Your task to perform on an android device: change notifications settings Image 0: 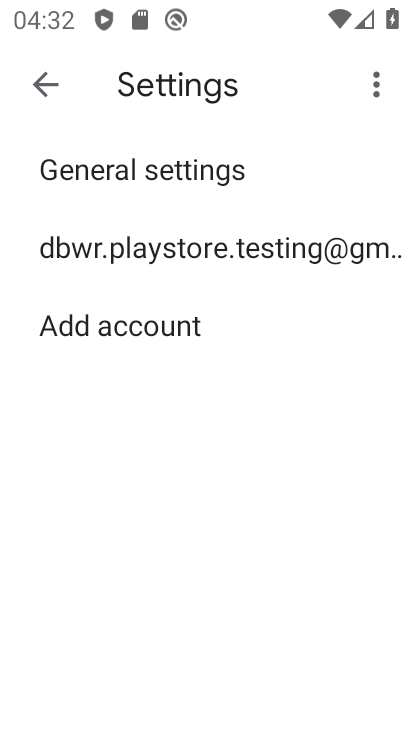
Step 0: press home button
Your task to perform on an android device: change notifications settings Image 1: 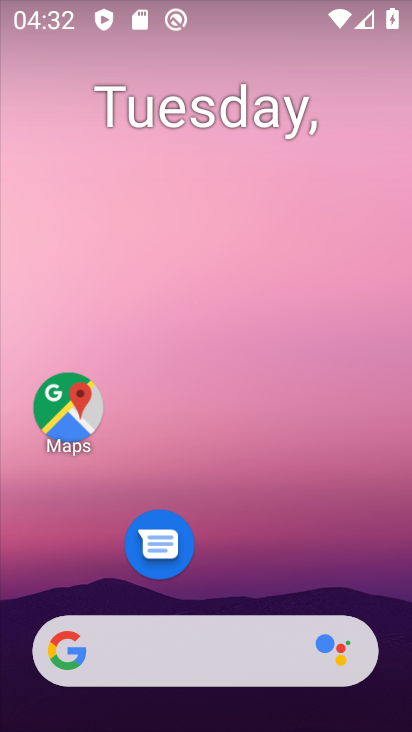
Step 1: drag from (234, 599) to (242, 216)
Your task to perform on an android device: change notifications settings Image 2: 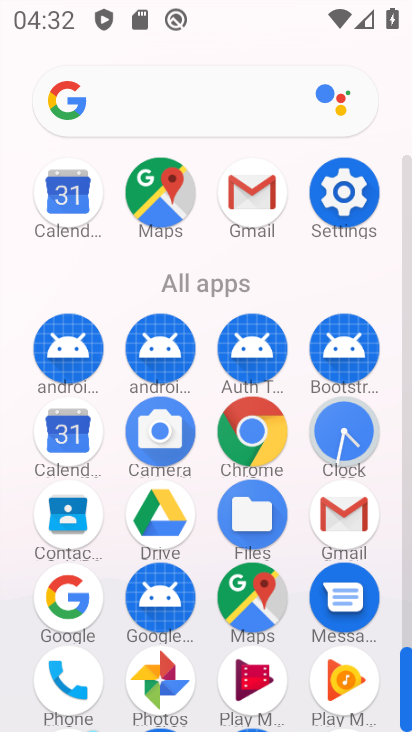
Step 2: click (337, 195)
Your task to perform on an android device: change notifications settings Image 3: 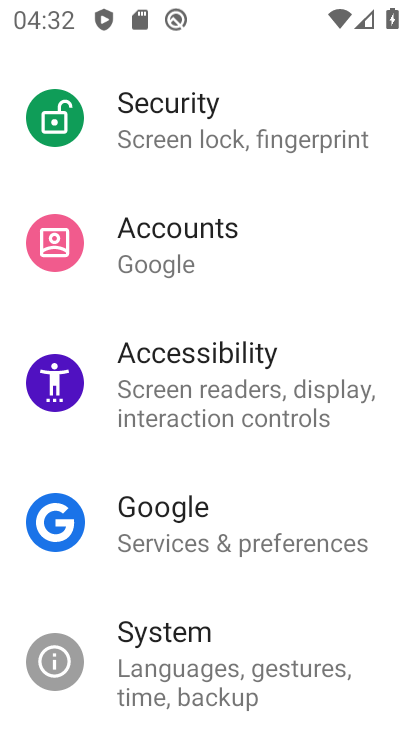
Step 3: drag from (216, 260) to (204, 471)
Your task to perform on an android device: change notifications settings Image 4: 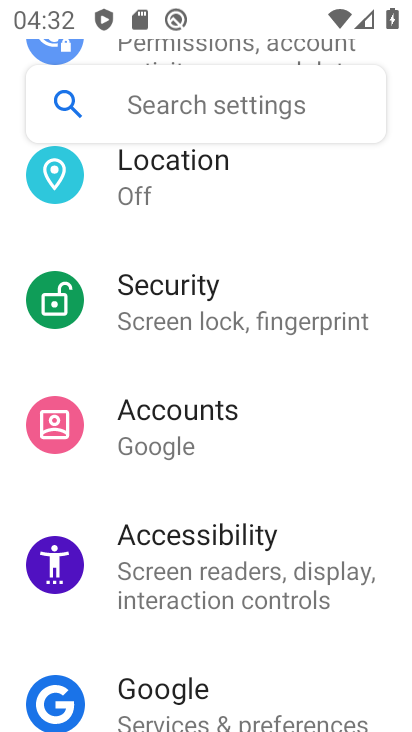
Step 4: drag from (197, 225) to (196, 503)
Your task to perform on an android device: change notifications settings Image 5: 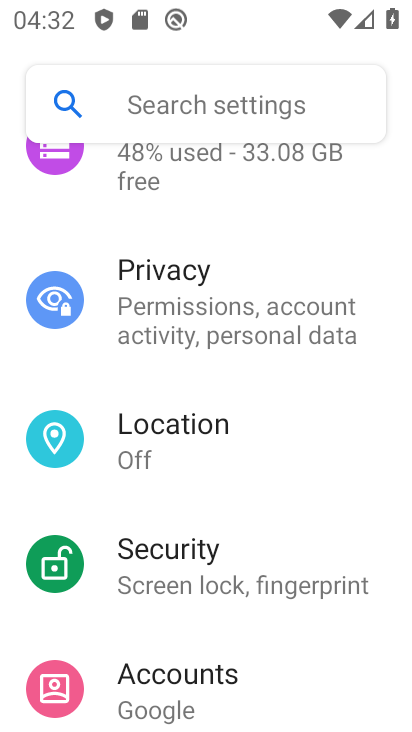
Step 5: drag from (244, 262) to (221, 502)
Your task to perform on an android device: change notifications settings Image 6: 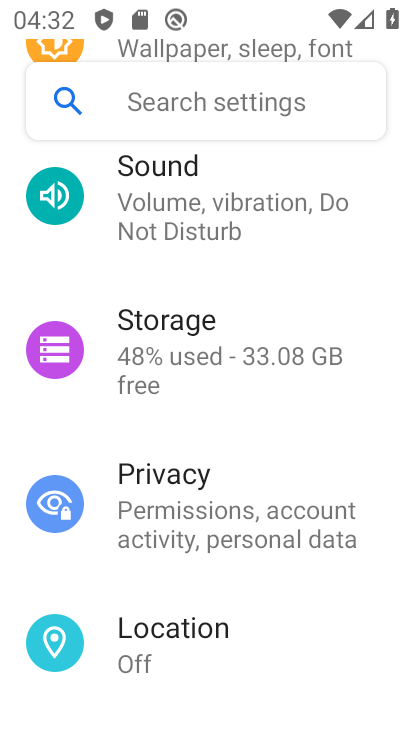
Step 6: drag from (236, 248) to (193, 725)
Your task to perform on an android device: change notifications settings Image 7: 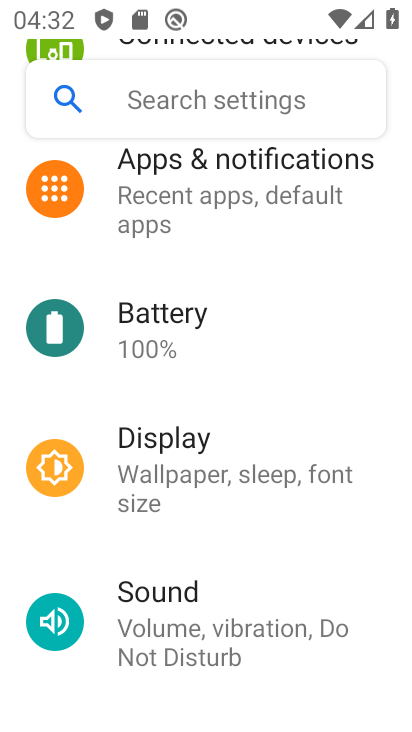
Step 7: click (261, 215)
Your task to perform on an android device: change notifications settings Image 8: 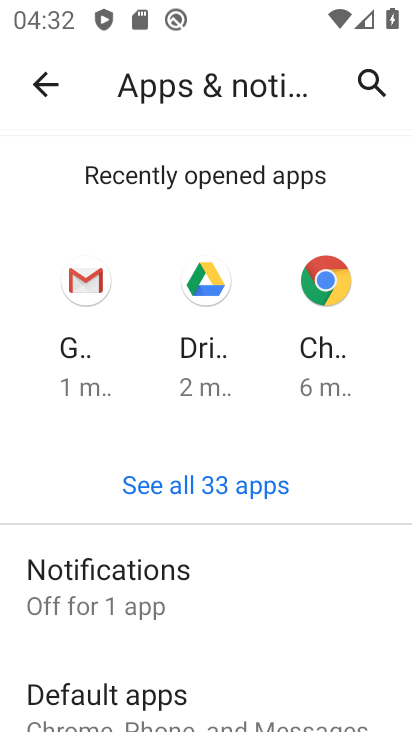
Step 8: click (190, 569)
Your task to perform on an android device: change notifications settings Image 9: 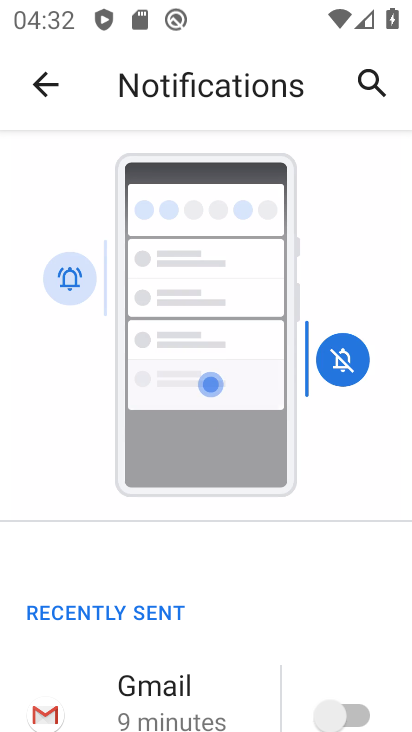
Step 9: drag from (227, 656) to (304, 201)
Your task to perform on an android device: change notifications settings Image 10: 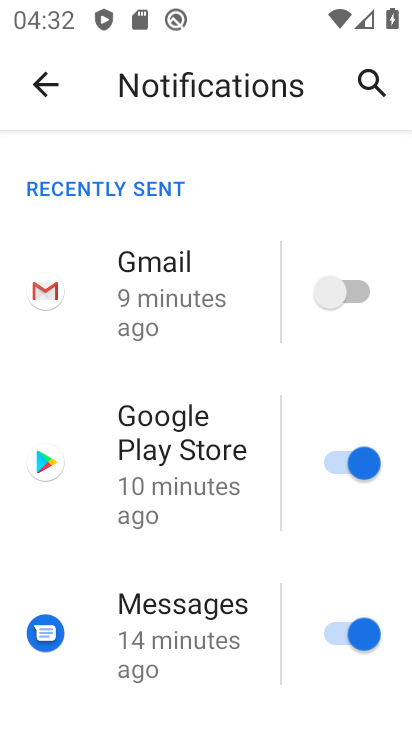
Step 10: click (323, 454)
Your task to perform on an android device: change notifications settings Image 11: 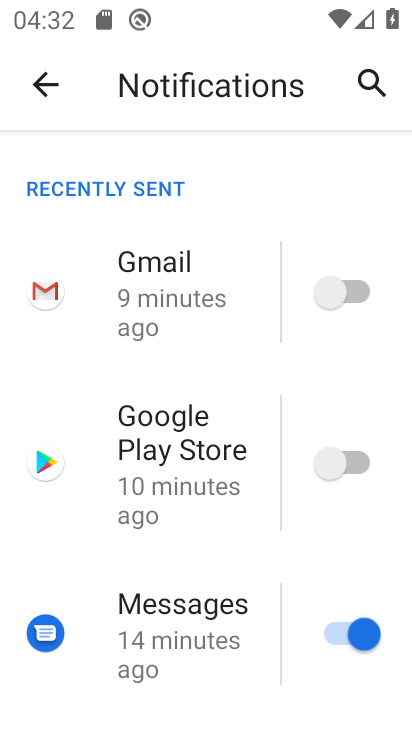
Step 11: click (319, 630)
Your task to perform on an android device: change notifications settings Image 12: 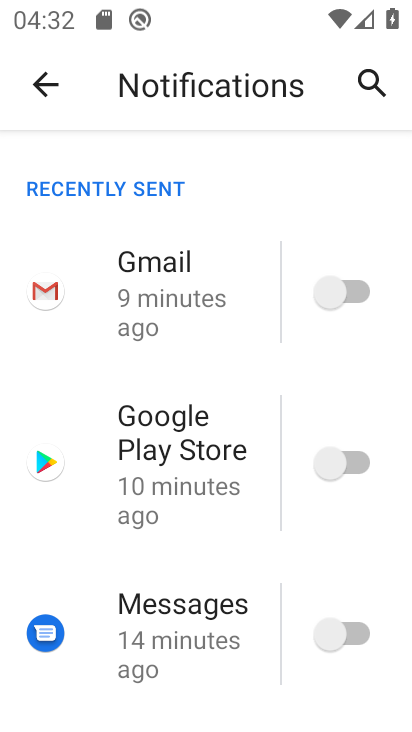
Step 12: drag from (186, 642) to (253, 298)
Your task to perform on an android device: change notifications settings Image 13: 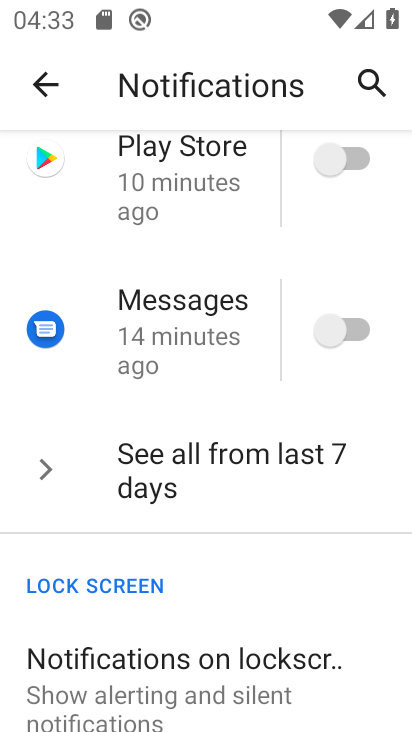
Step 13: click (163, 468)
Your task to perform on an android device: change notifications settings Image 14: 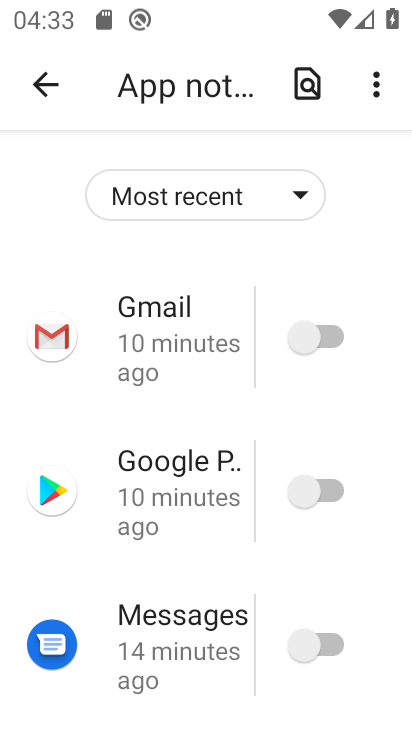
Step 14: drag from (260, 563) to (305, 171)
Your task to perform on an android device: change notifications settings Image 15: 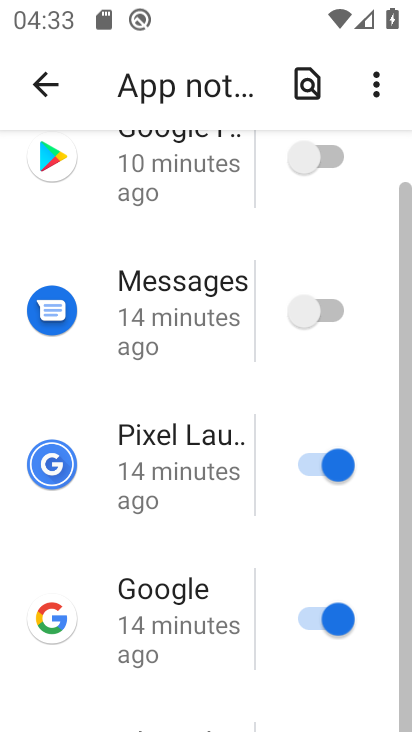
Step 15: click (306, 458)
Your task to perform on an android device: change notifications settings Image 16: 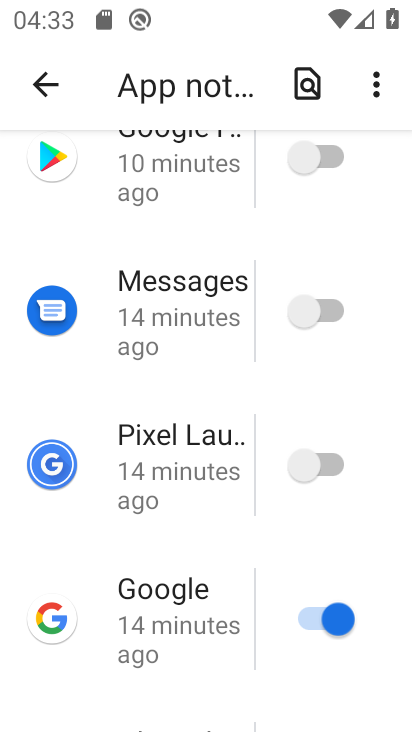
Step 16: click (302, 606)
Your task to perform on an android device: change notifications settings Image 17: 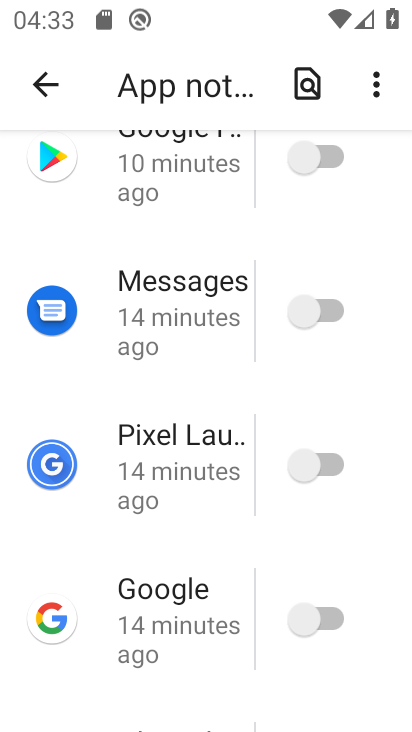
Step 17: drag from (233, 589) to (315, 9)
Your task to perform on an android device: change notifications settings Image 18: 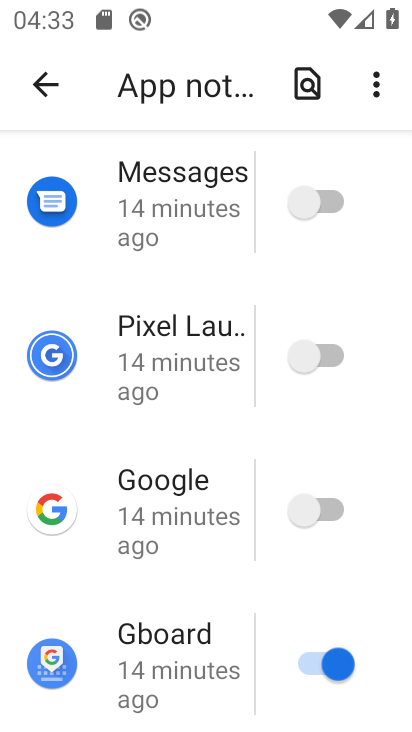
Step 18: click (304, 676)
Your task to perform on an android device: change notifications settings Image 19: 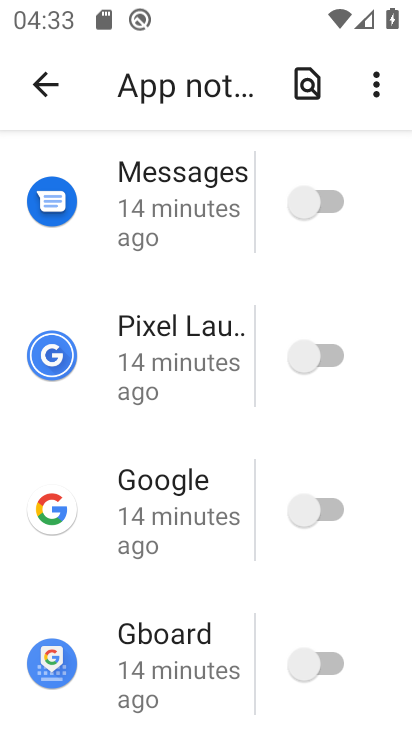
Step 19: task complete